Your task to perform on an android device: Open Google Chrome Image 0: 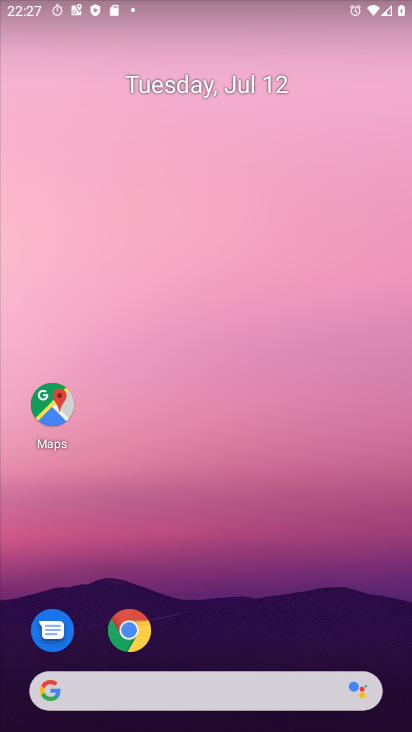
Step 0: click (135, 632)
Your task to perform on an android device: Open Google Chrome Image 1: 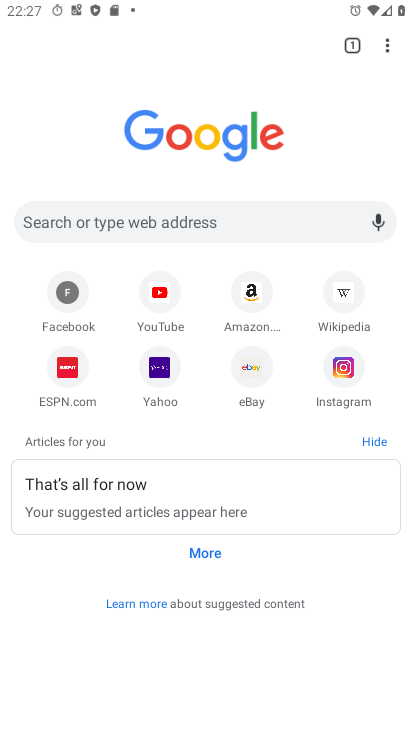
Step 1: task complete